Your task to perform on an android device: Do I have any events this weekend? Image 0: 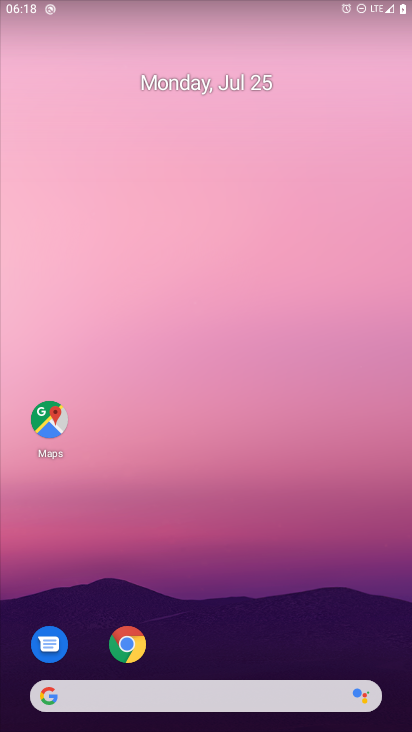
Step 0: press home button
Your task to perform on an android device: Do I have any events this weekend? Image 1: 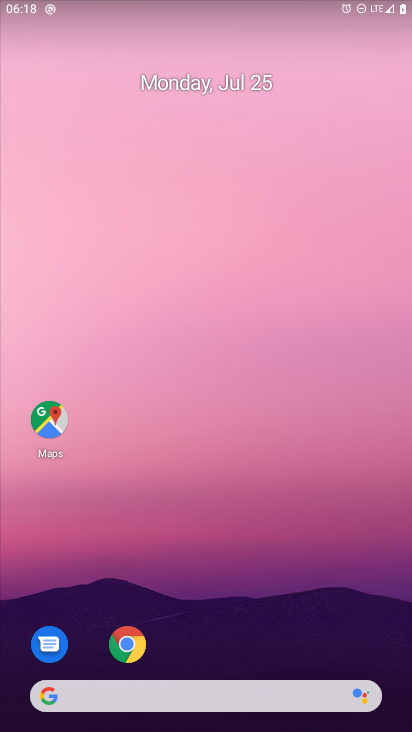
Step 1: drag from (236, 663) to (253, 134)
Your task to perform on an android device: Do I have any events this weekend? Image 2: 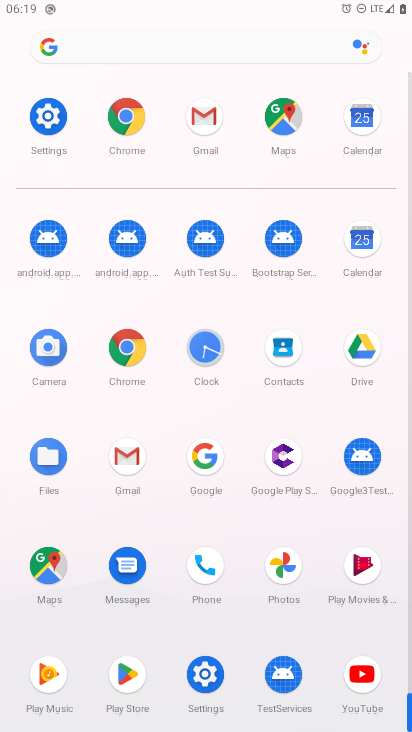
Step 2: click (365, 119)
Your task to perform on an android device: Do I have any events this weekend? Image 3: 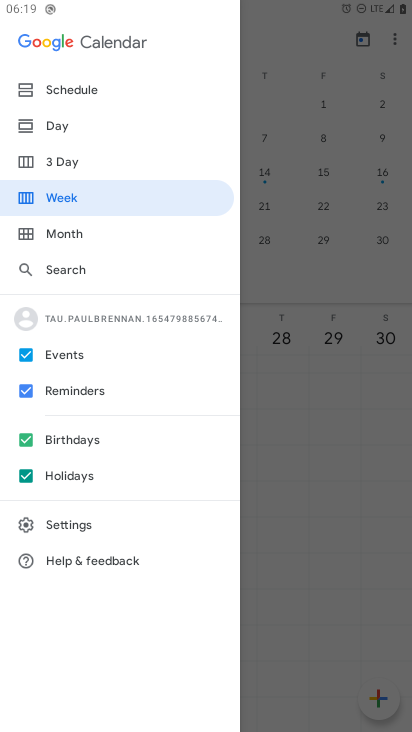
Step 3: click (83, 91)
Your task to perform on an android device: Do I have any events this weekend? Image 4: 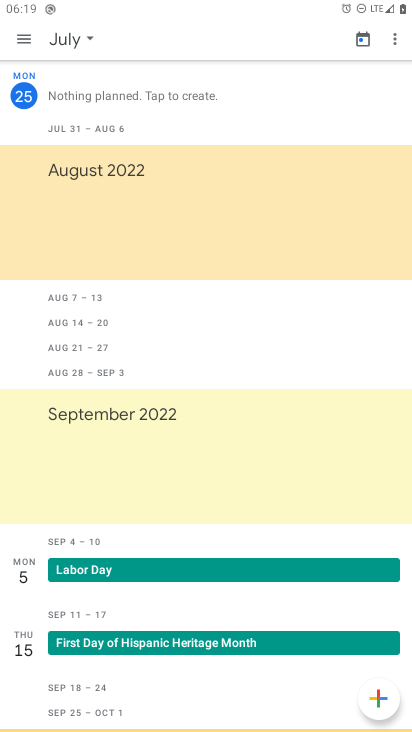
Step 4: task complete